Your task to perform on an android device: What's the weather? Image 0: 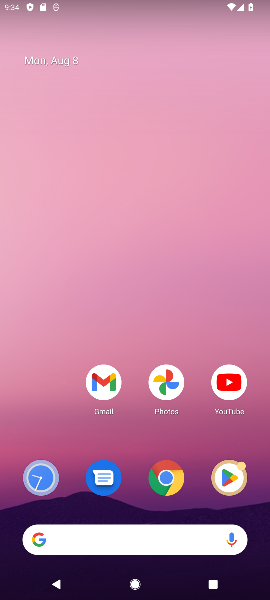
Step 0: click (116, 537)
Your task to perform on an android device: What's the weather? Image 1: 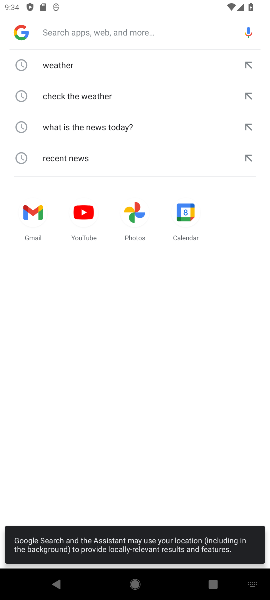
Step 1: click (79, 60)
Your task to perform on an android device: What's the weather? Image 2: 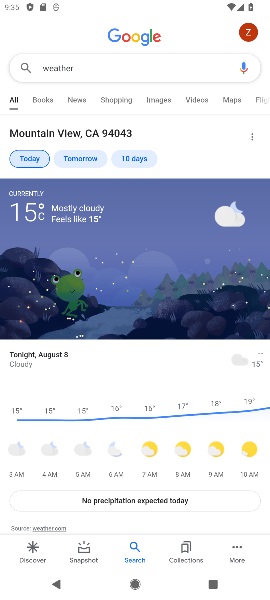
Step 2: click (62, 166)
Your task to perform on an android device: What's the weather? Image 3: 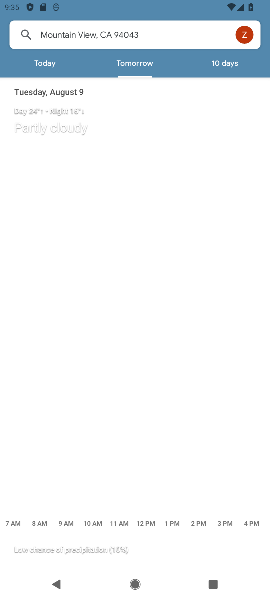
Step 3: task complete